Your task to perform on an android device: Do I have any events tomorrow? Image 0: 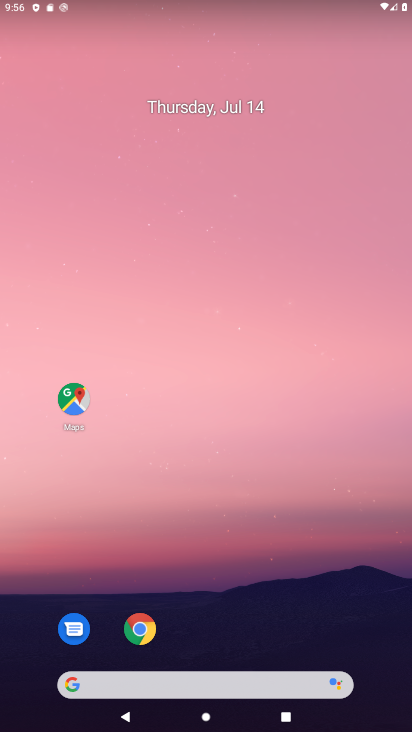
Step 0: drag from (285, 618) to (391, 4)
Your task to perform on an android device: Do I have any events tomorrow? Image 1: 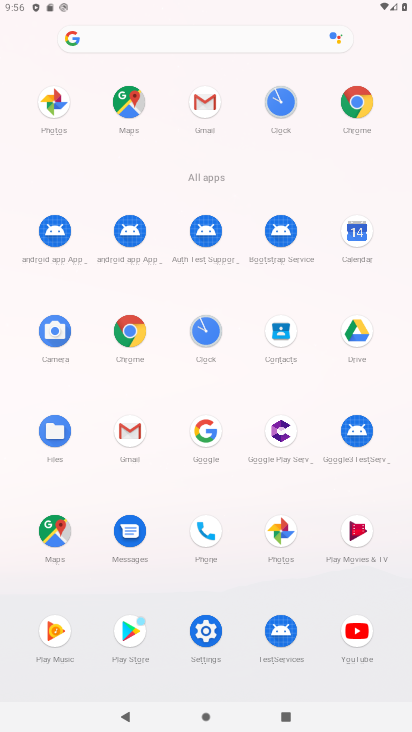
Step 1: click (355, 231)
Your task to perform on an android device: Do I have any events tomorrow? Image 2: 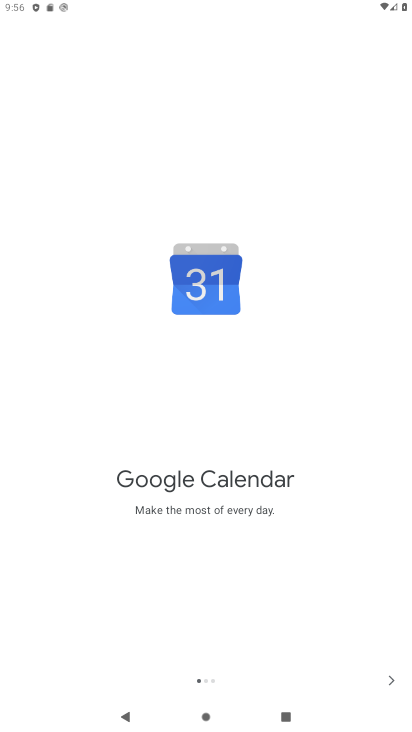
Step 2: click (392, 682)
Your task to perform on an android device: Do I have any events tomorrow? Image 3: 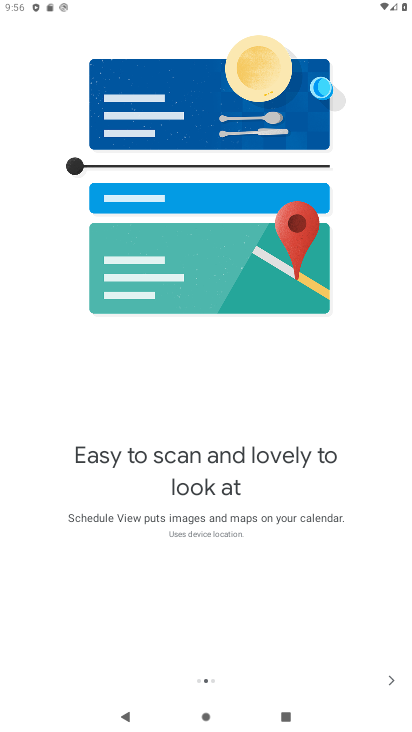
Step 3: click (392, 682)
Your task to perform on an android device: Do I have any events tomorrow? Image 4: 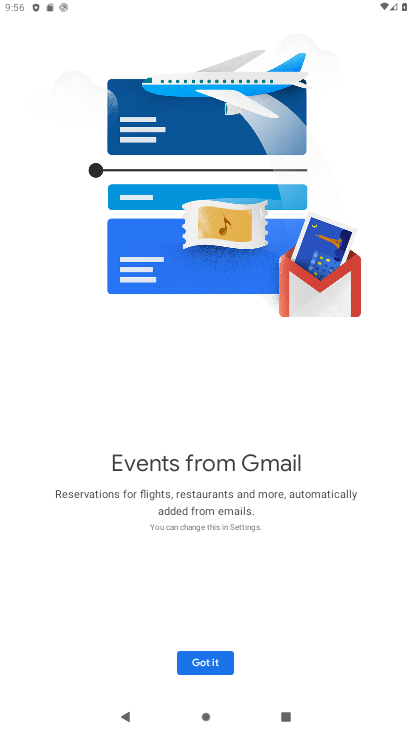
Step 4: click (219, 666)
Your task to perform on an android device: Do I have any events tomorrow? Image 5: 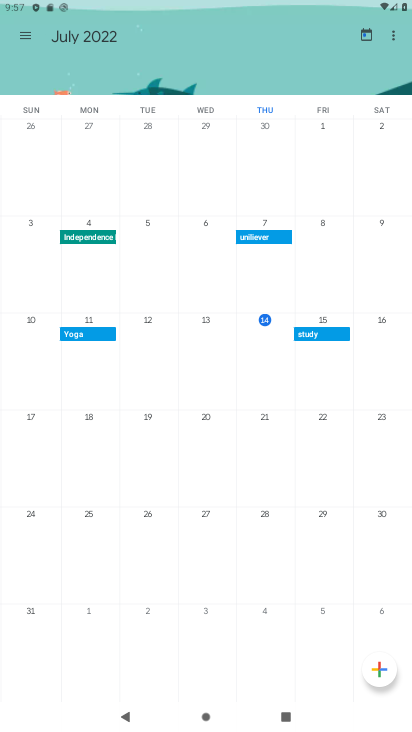
Step 5: click (306, 343)
Your task to perform on an android device: Do I have any events tomorrow? Image 6: 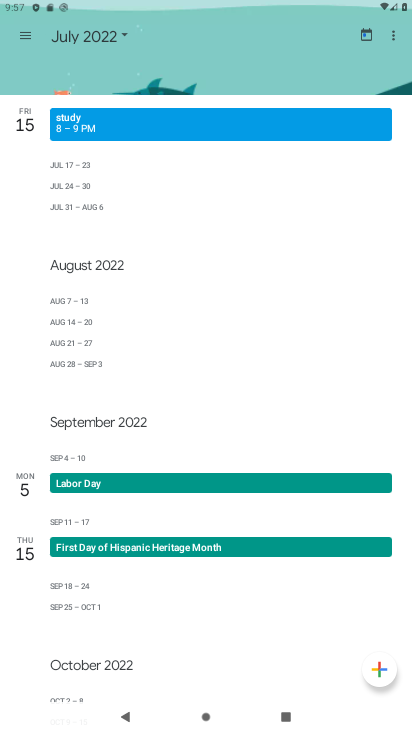
Step 6: task complete